Your task to perform on an android device: clear all cookies in the chrome app Image 0: 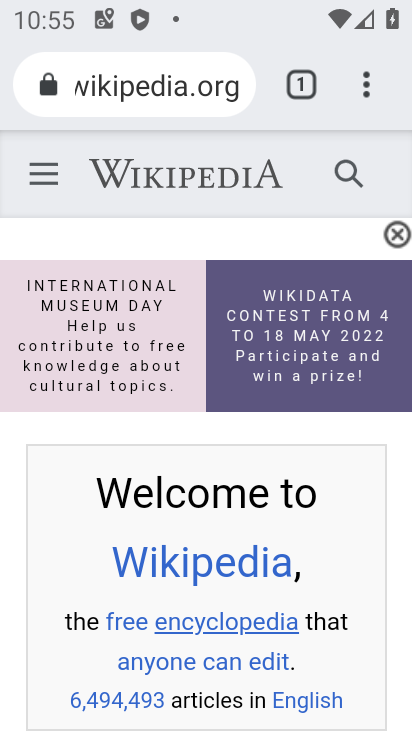
Step 0: click (363, 70)
Your task to perform on an android device: clear all cookies in the chrome app Image 1: 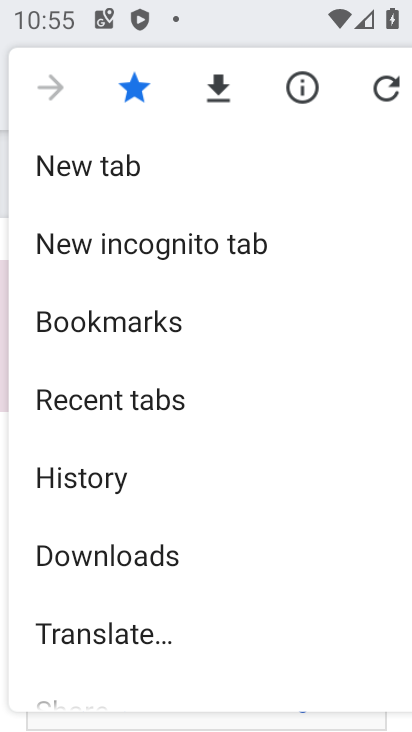
Step 1: drag from (207, 625) to (299, 14)
Your task to perform on an android device: clear all cookies in the chrome app Image 2: 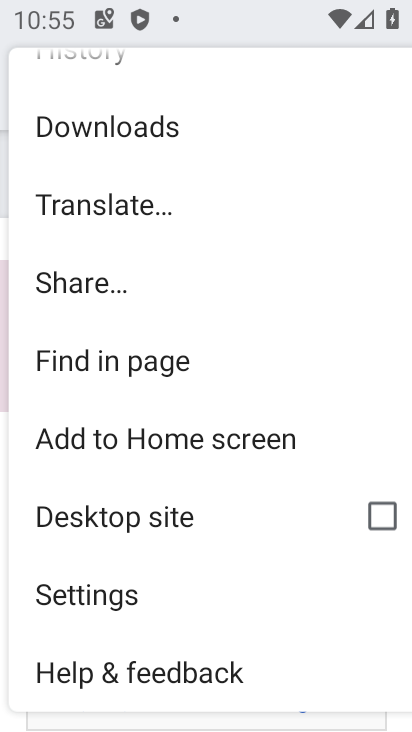
Step 2: click (147, 591)
Your task to perform on an android device: clear all cookies in the chrome app Image 3: 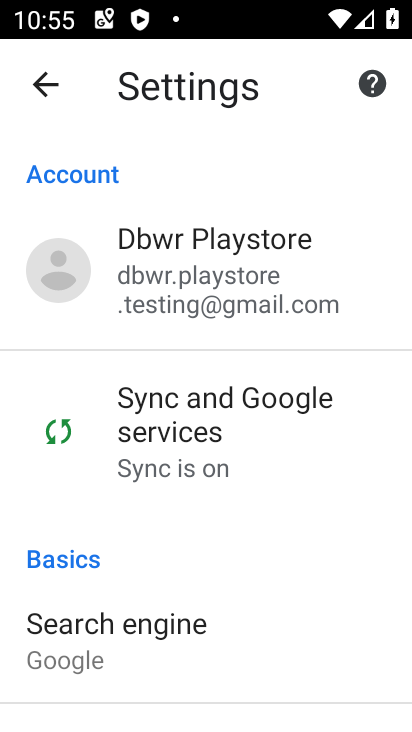
Step 3: drag from (173, 642) to (228, 142)
Your task to perform on an android device: clear all cookies in the chrome app Image 4: 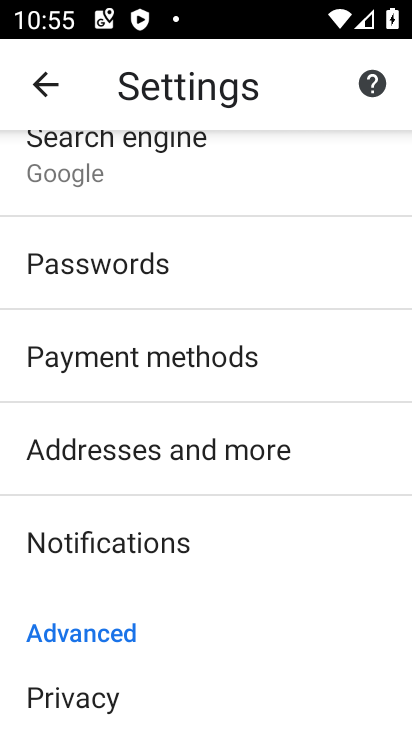
Step 4: drag from (165, 679) to (225, 94)
Your task to perform on an android device: clear all cookies in the chrome app Image 5: 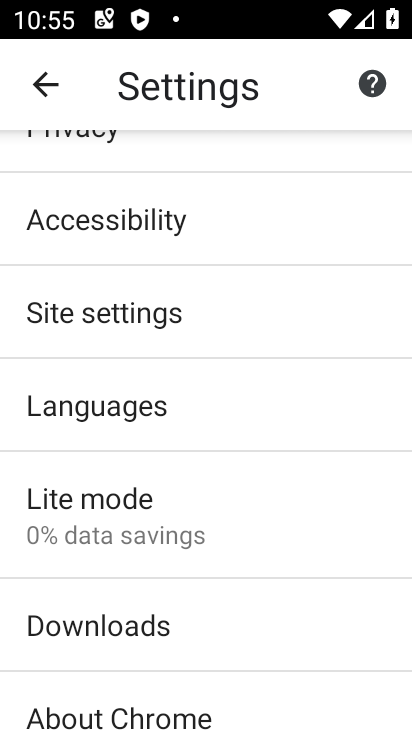
Step 5: click (189, 316)
Your task to perform on an android device: clear all cookies in the chrome app Image 6: 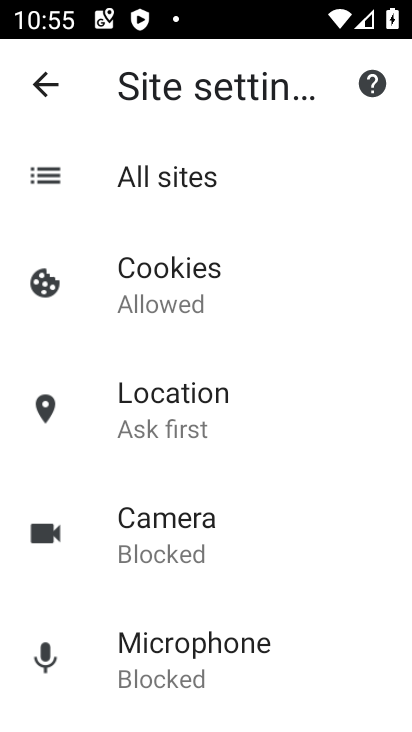
Step 6: click (91, 272)
Your task to perform on an android device: clear all cookies in the chrome app Image 7: 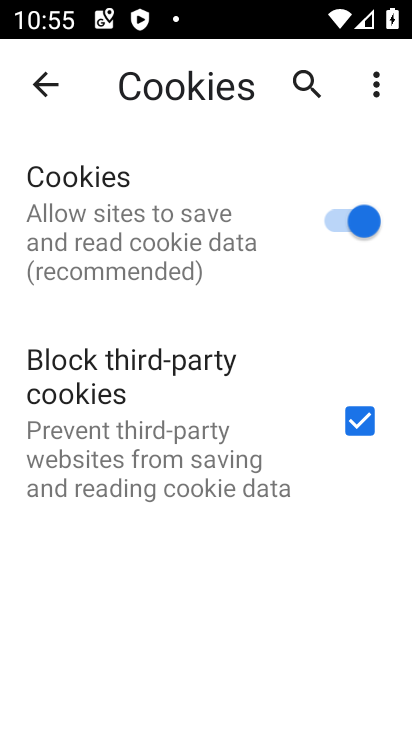
Step 7: task complete